Your task to perform on an android device: Open ESPN.com Image 0: 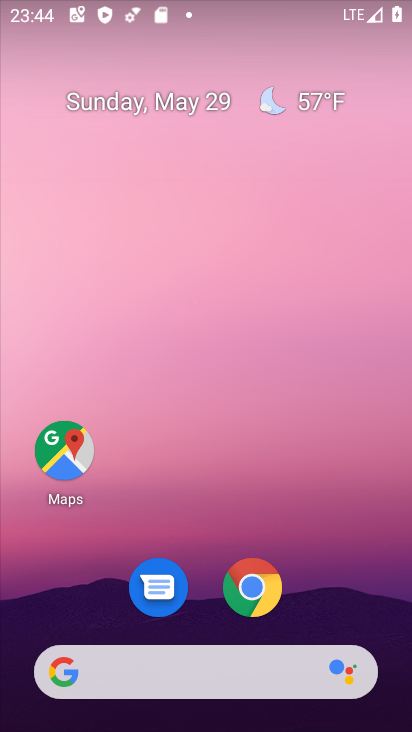
Step 0: drag from (361, 599) to (210, 31)
Your task to perform on an android device: Open ESPN.com Image 1: 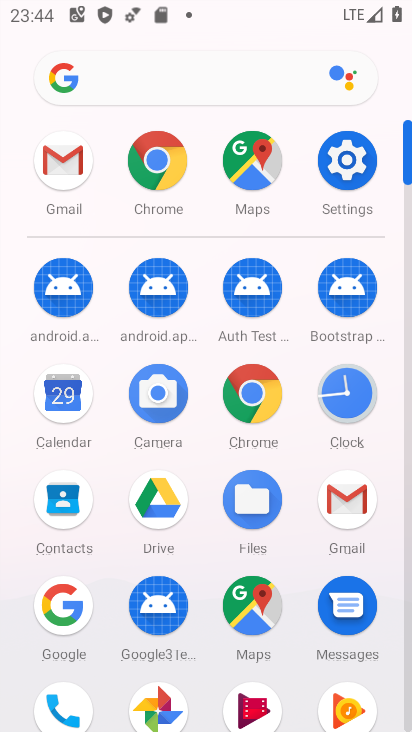
Step 1: click (141, 156)
Your task to perform on an android device: Open ESPN.com Image 2: 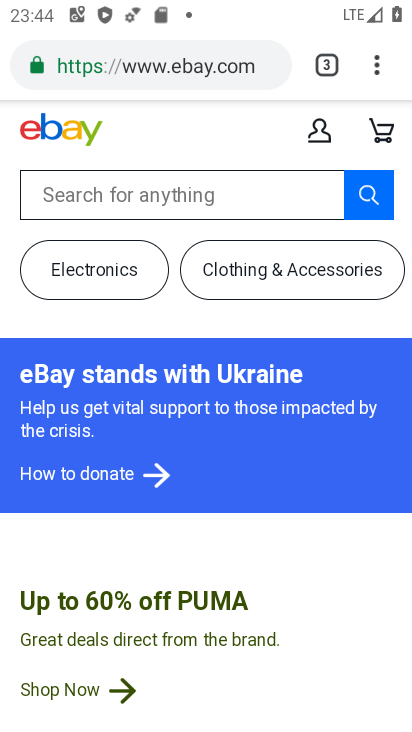
Step 2: click (151, 61)
Your task to perform on an android device: Open ESPN.com Image 3: 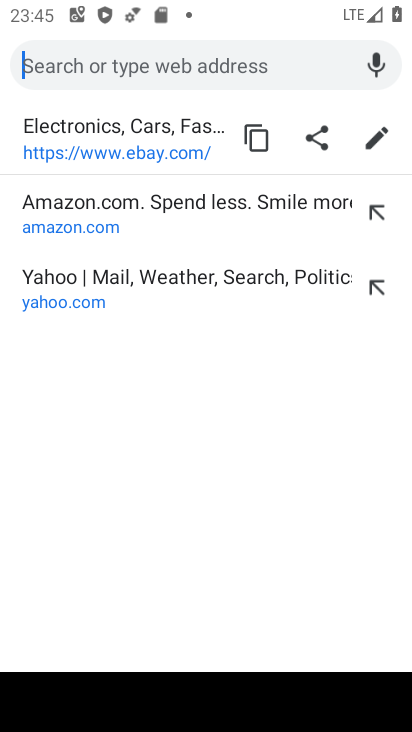
Step 3: type "espn"
Your task to perform on an android device: Open ESPN.com Image 4: 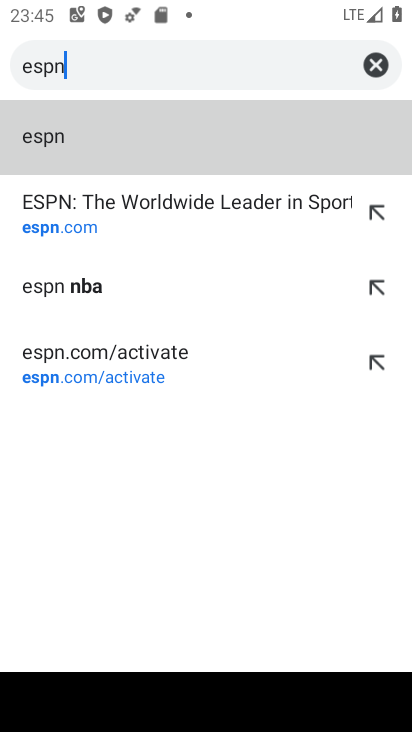
Step 4: click (73, 230)
Your task to perform on an android device: Open ESPN.com Image 5: 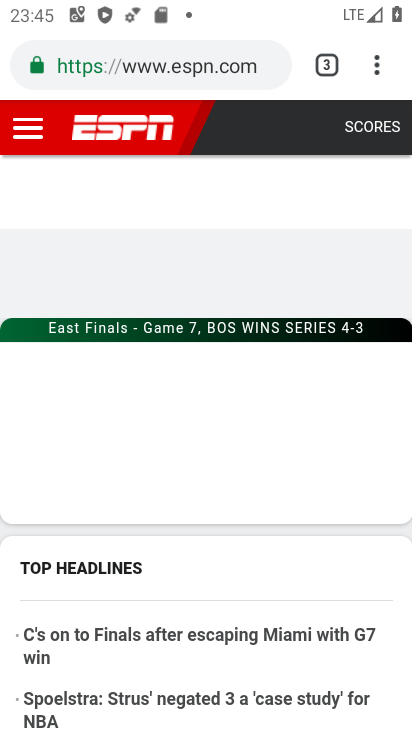
Step 5: task complete